Your task to perform on an android device: What is the news today? Image 0: 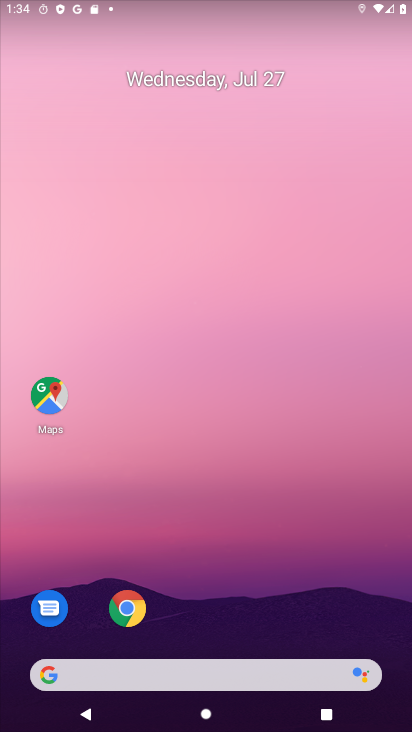
Step 0: drag from (183, 622) to (219, 2)
Your task to perform on an android device: What is the news today? Image 1: 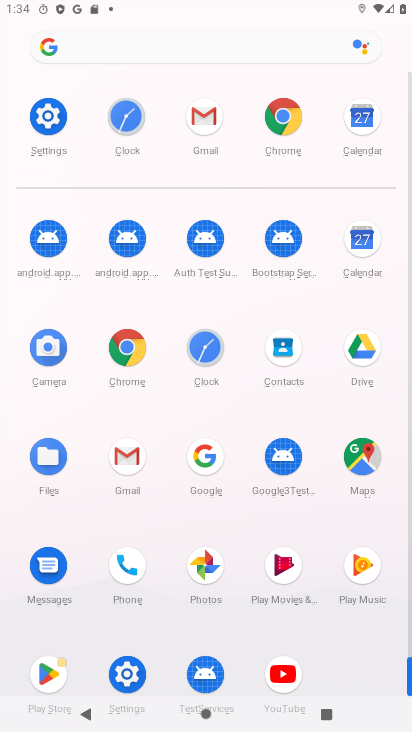
Step 1: click (203, 471)
Your task to perform on an android device: What is the news today? Image 2: 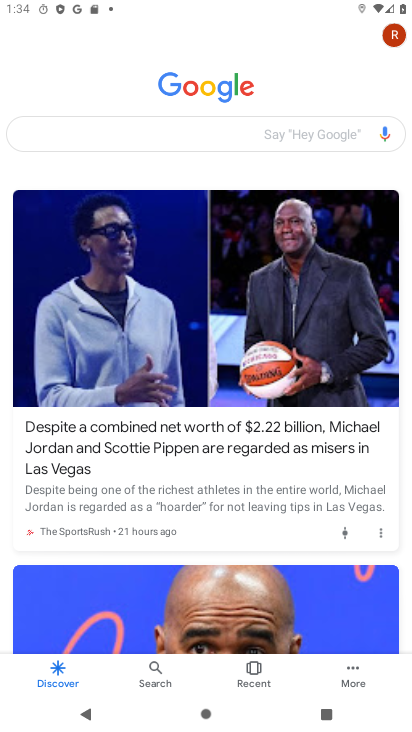
Step 2: click (176, 130)
Your task to perform on an android device: What is the news today? Image 3: 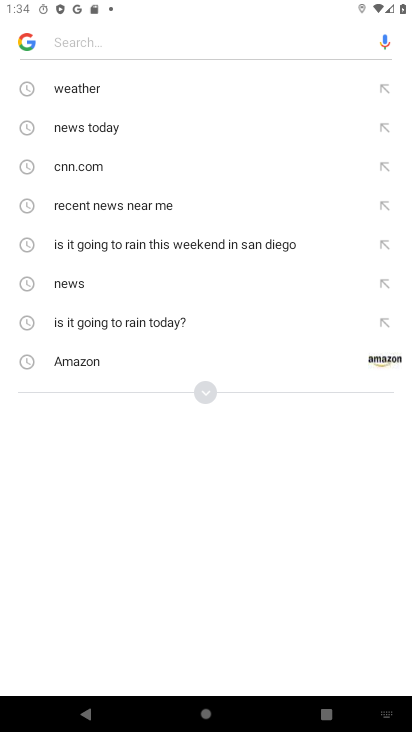
Step 3: click (107, 133)
Your task to perform on an android device: What is the news today? Image 4: 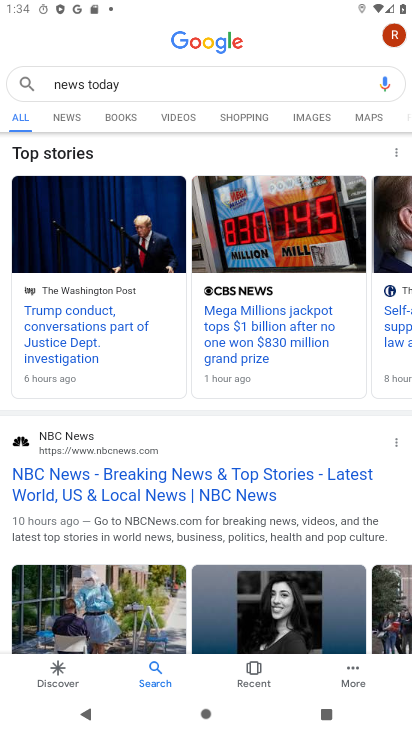
Step 4: task complete